Your task to perform on an android device: change keyboard looks Image 0: 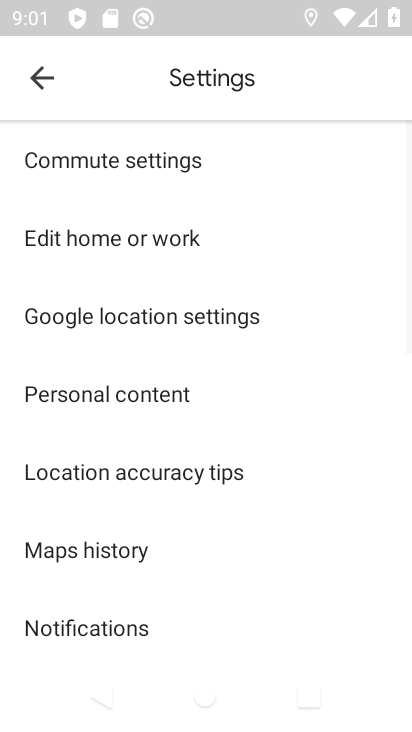
Step 0: press home button
Your task to perform on an android device: change keyboard looks Image 1: 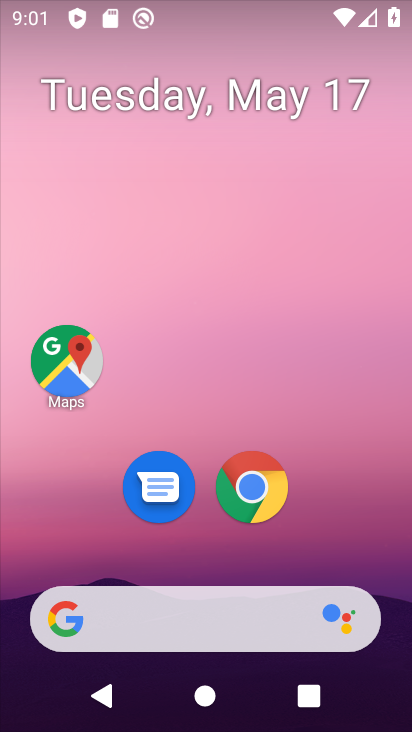
Step 1: drag from (257, 659) to (251, 211)
Your task to perform on an android device: change keyboard looks Image 2: 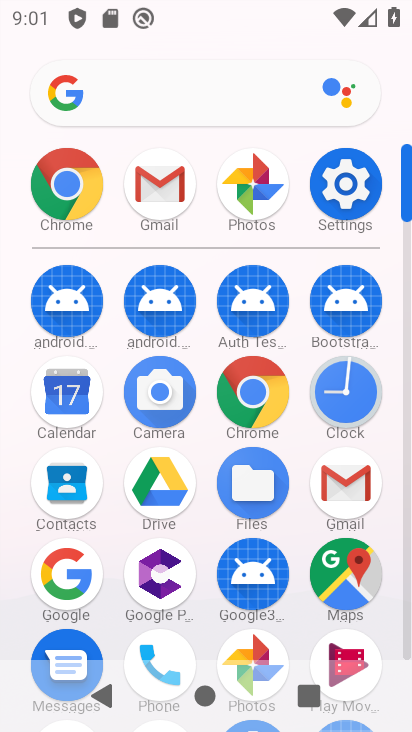
Step 2: click (331, 210)
Your task to perform on an android device: change keyboard looks Image 3: 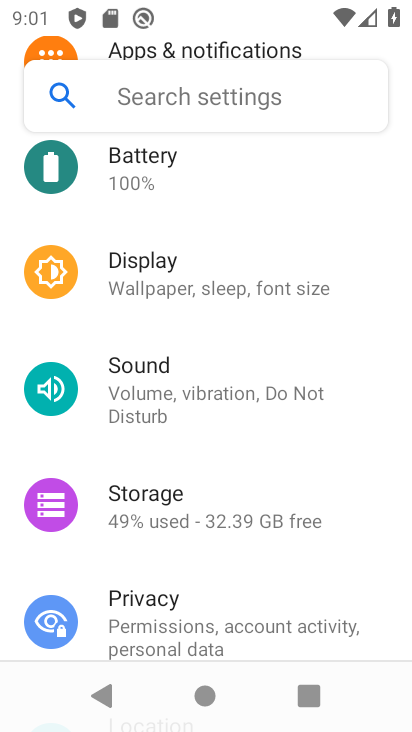
Step 3: click (187, 97)
Your task to perform on an android device: change keyboard looks Image 4: 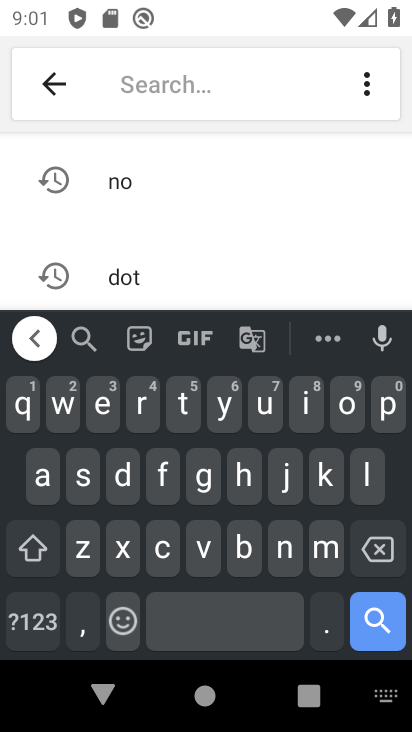
Step 4: click (332, 482)
Your task to perform on an android device: change keyboard looks Image 5: 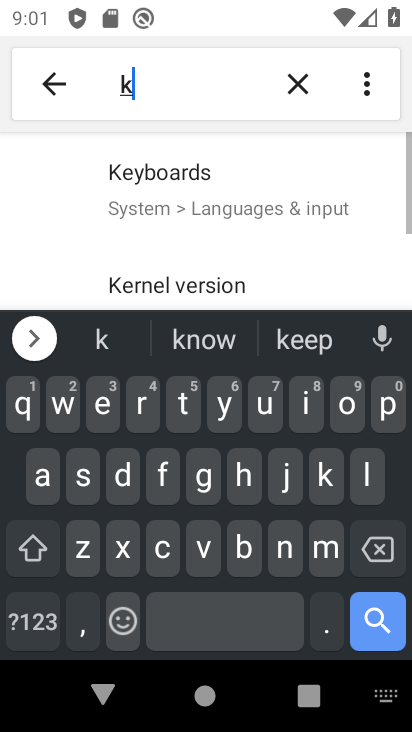
Step 5: click (100, 414)
Your task to perform on an android device: change keyboard looks Image 6: 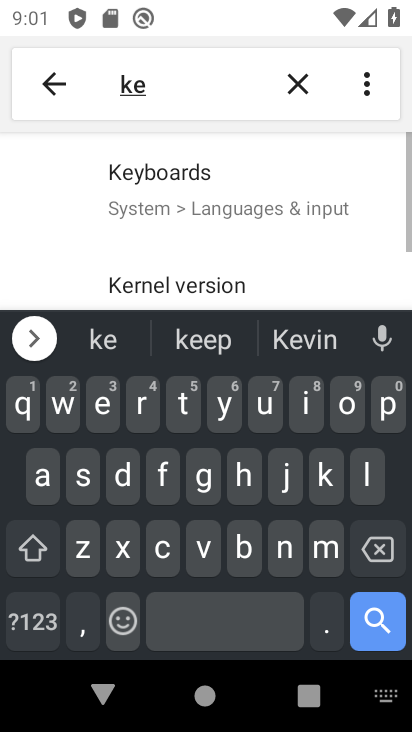
Step 6: click (226, 409)
Your task to perform on an android device: change keyboard looks Image 7: 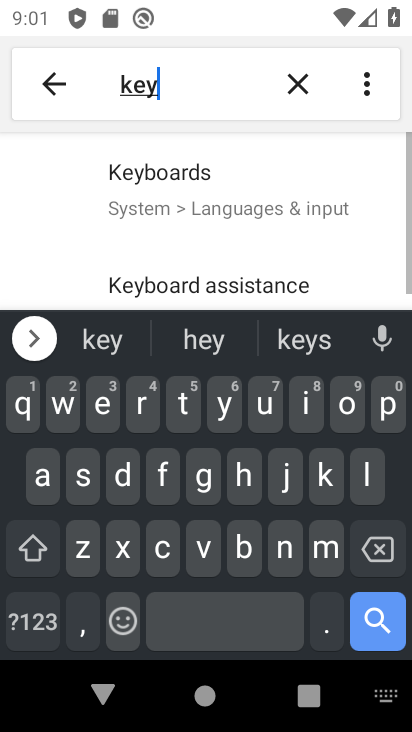
Step 7: click (204, 207)
Your task to perform on an android device: change keyboard looks Image 8: 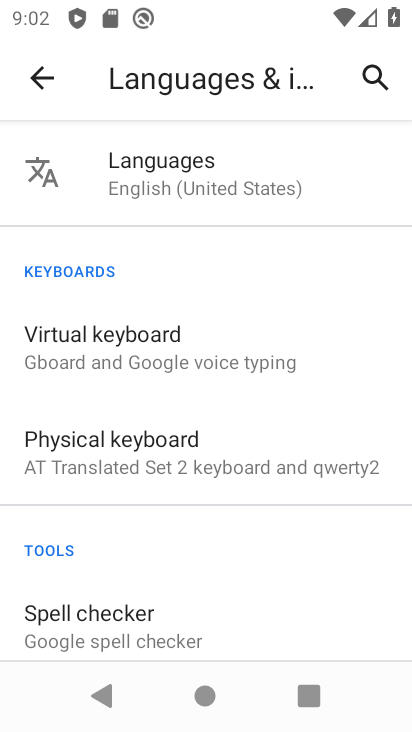
Step 8: click (122, 355)
Your task to perform on an android device: change keyboard looks Image 9: 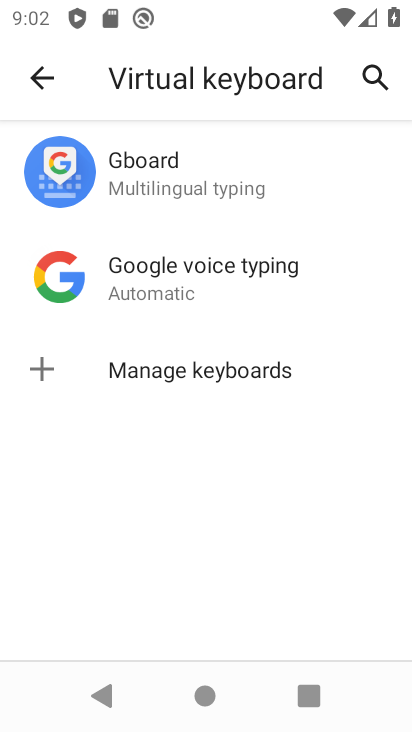
Step 9: click (185, 185)
Your task to perform on an android device: change keyboard looks Image 10: 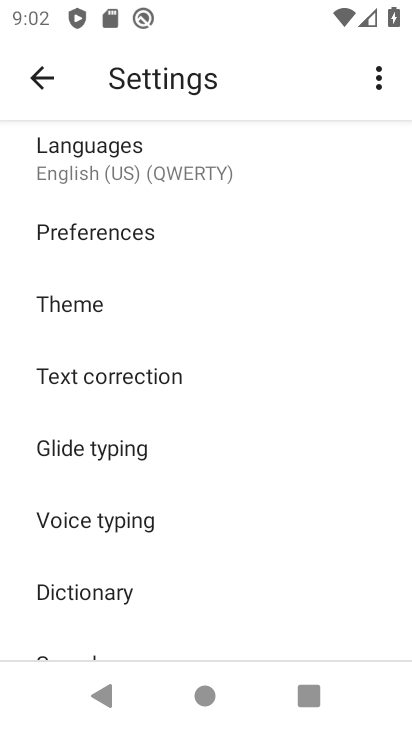
Step 10: click (143, 311)
Your task to perform on an android device: change keyboard looks Image 11: 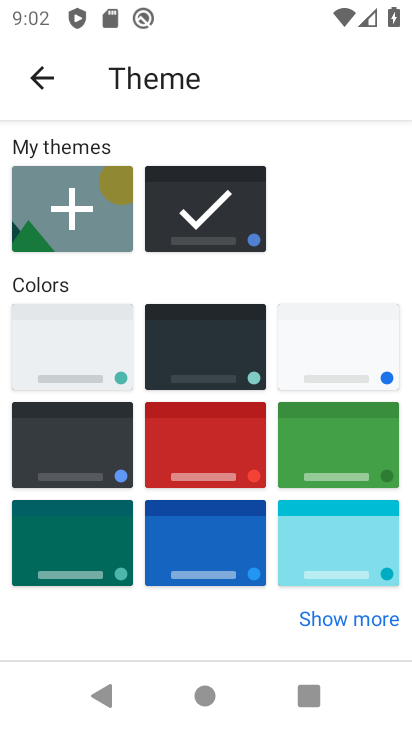
Step 11: click (97, 577)
Your task to perform on an android device: change keyboard looks Image 12: 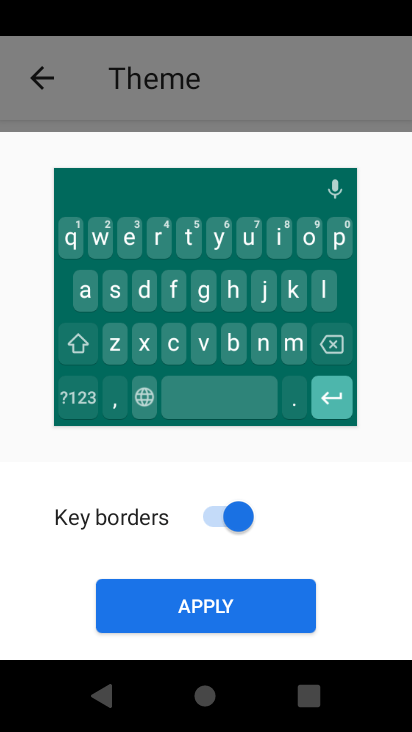
Step 12: click (211, 591)
Your task to perform on an android device: change keyboard looks Image 13: 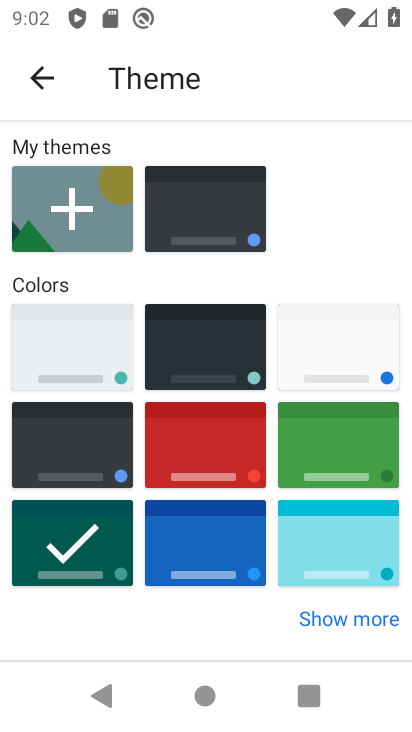
Step 13: task complete